Your task to perform on an android device: turn off smart reply in the gmail app Image 0: 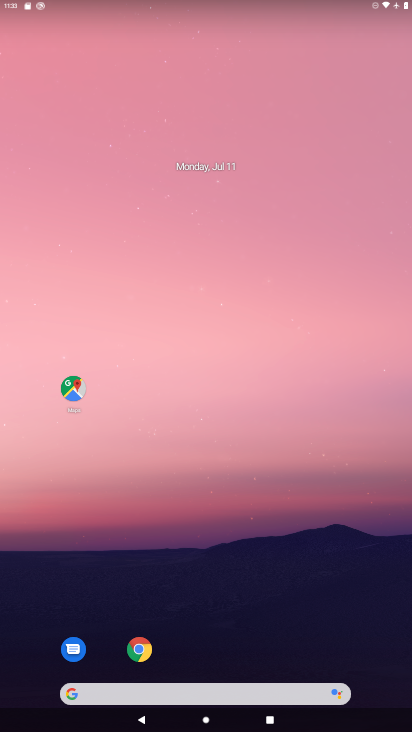
Step 0: drag from (316, 582) to (253, 0)
Your task to perform on an android device: turn off smart reply in the gmail app Image 1: 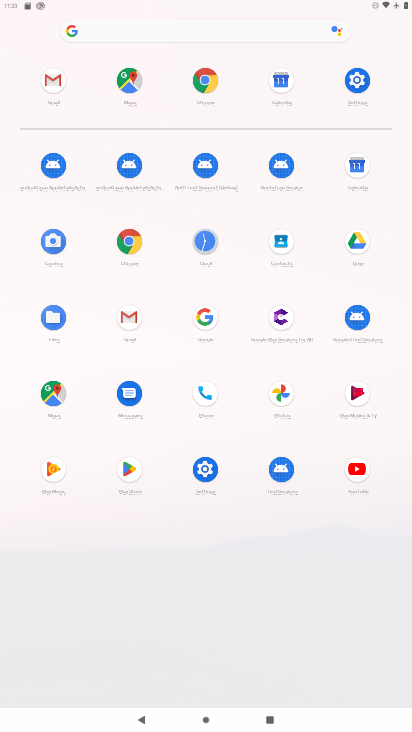
Step 1: click (58, 77)
Your task to perform on an android device: turn off smart reply in the gmail app Image 2: 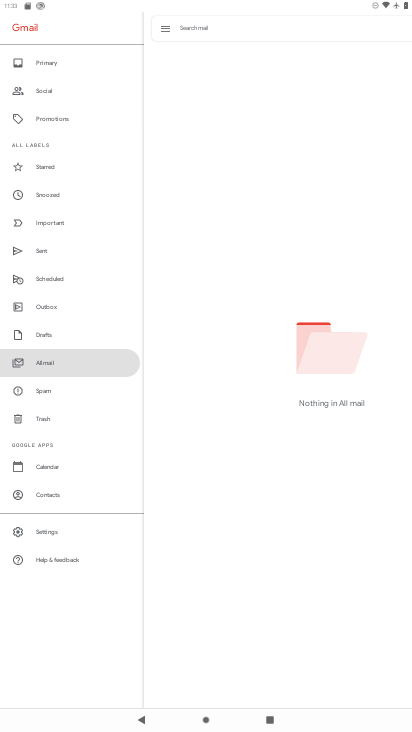
Step 2: click (54, 534)
Your task to perform on an android device: turn off smart reply in the gmail app Image 3: 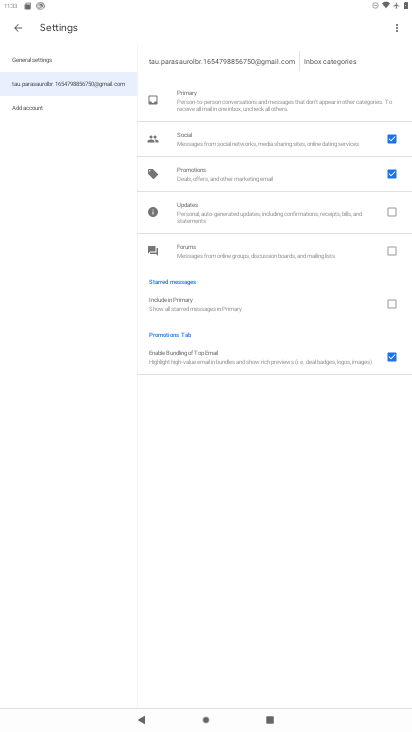
Step 3: click (57, 88)
Your task to perform on an android device: turn off smart reply in the gmail app Image 4: 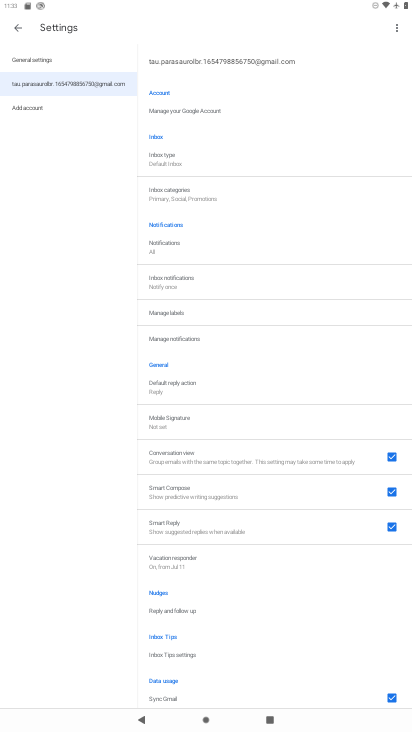
Step 4: drag from (322, 647) to (301, 245)
Your task to perform on an android device: turn off smart reply in the gmail app Image 5: 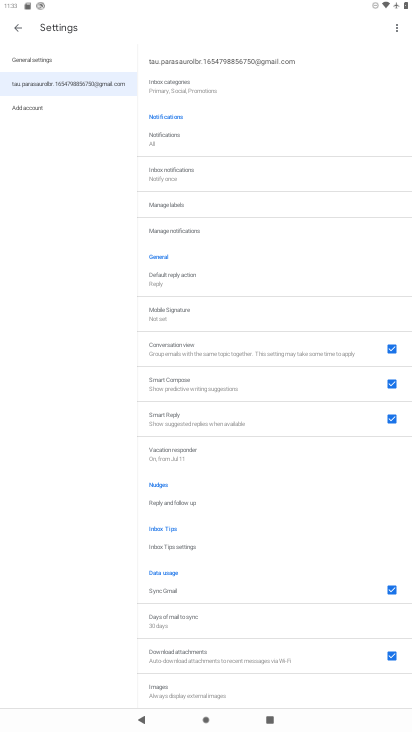
Step 5: click (395, 417)
Your task to perform on an android device: turn off smart reply in the gmail app Image 6: 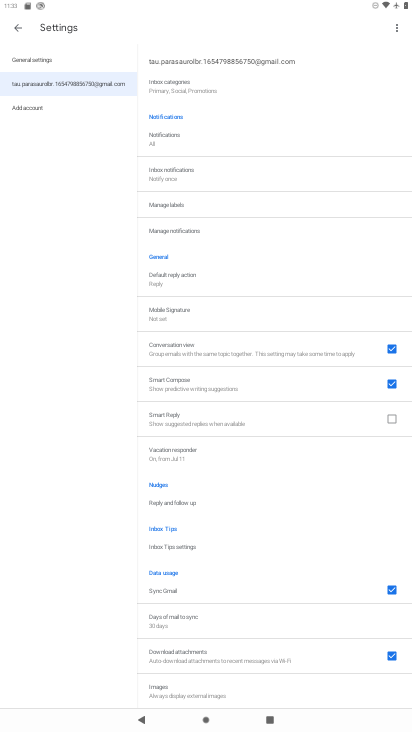
Step 6: task complete